Your task to perform on an android device: turn off wifi Image 0: 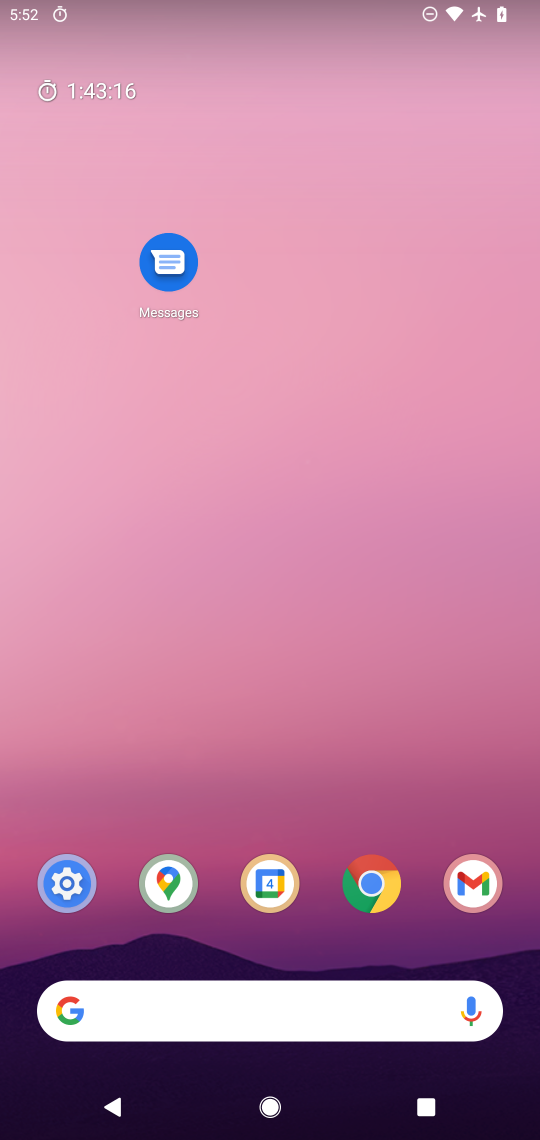
Step 0: drag from (309, 938) to (309, 29)
Your task to perform on an android device: turn off wifi Image 1: 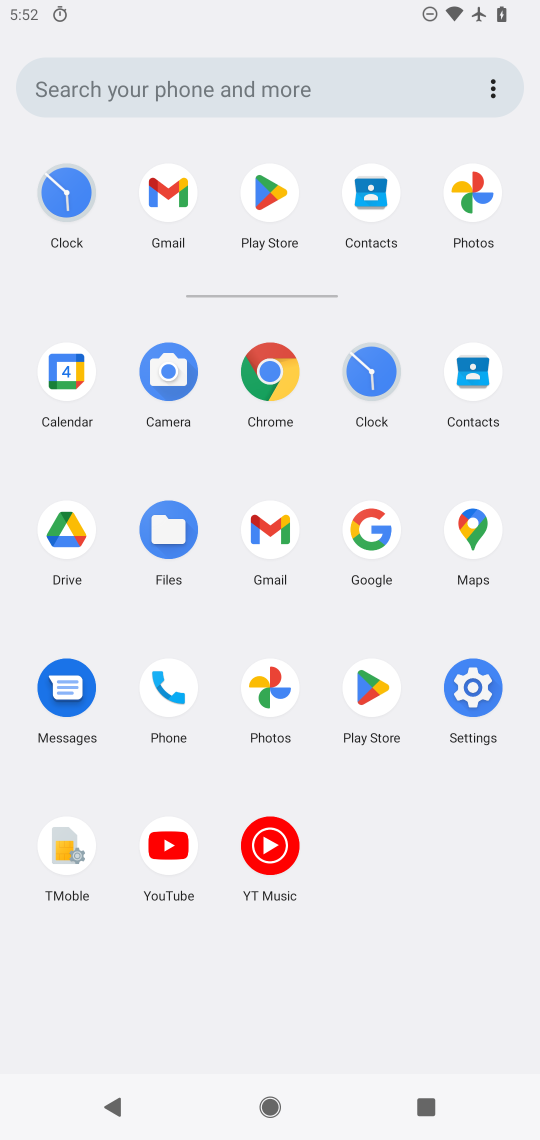
Step 1: click (477, 684)
Your task to perform on an android device: turn off wifi Image 2: 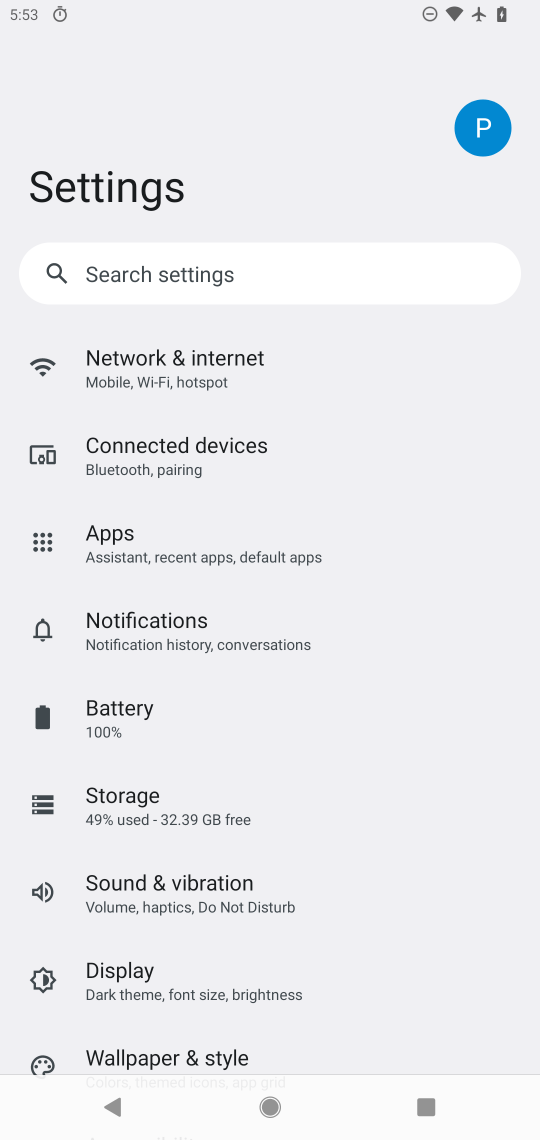
Step 2: click (177, 358)
Your task to perform on an android device: turn off wifi Image 3: 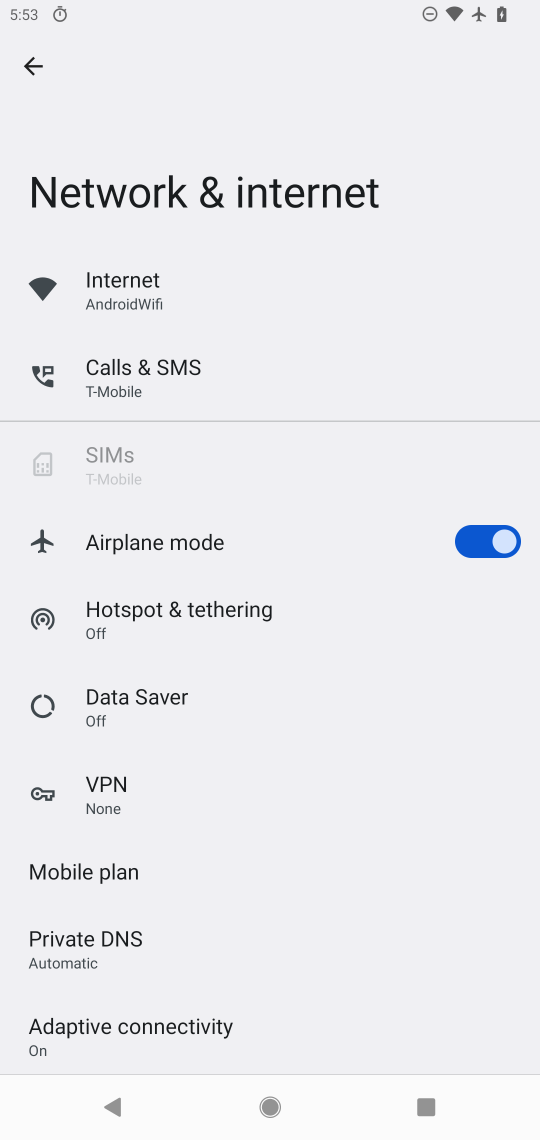
Step 3: click (122, 290)
Your task to perform on an android device: turn off wifi Image 4: 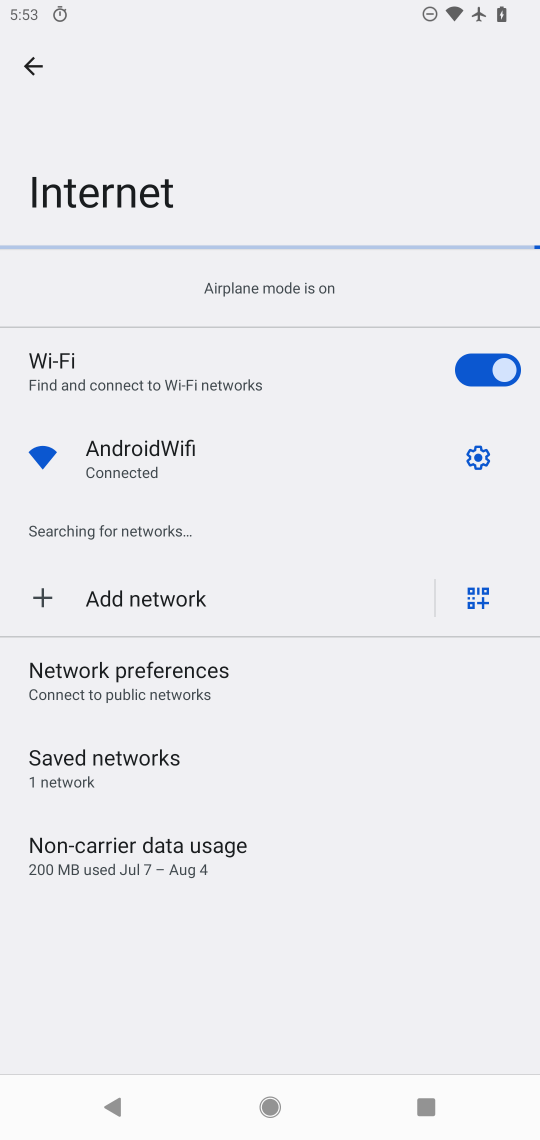
Step 4: click (495, 374)
Your task to perform on an android device: turn off wifi Image 5: 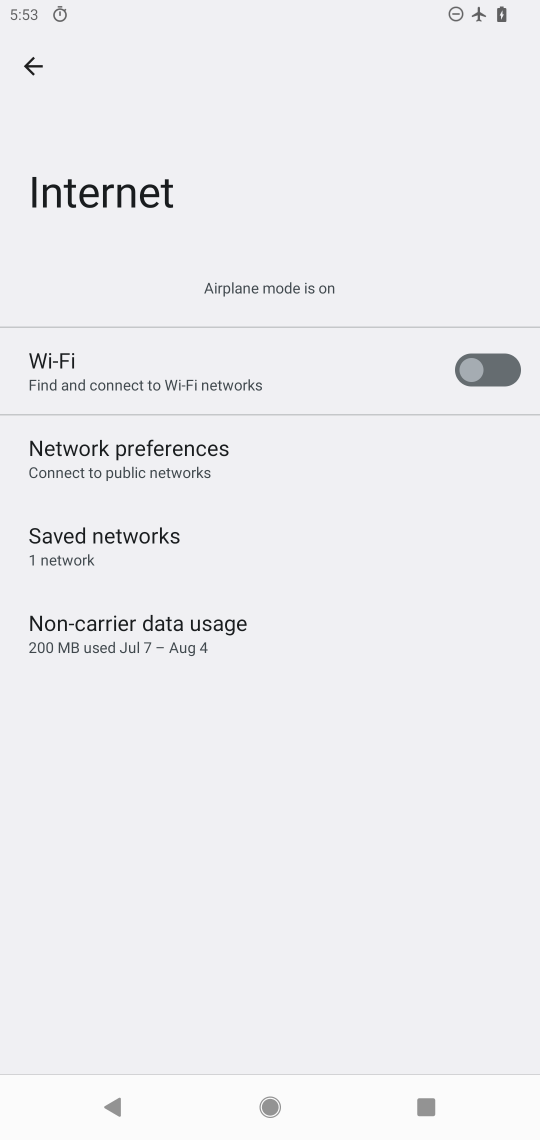
Step 5: task complete